Your task to perform on an android device: delete a single message in the gmail app Image 0: 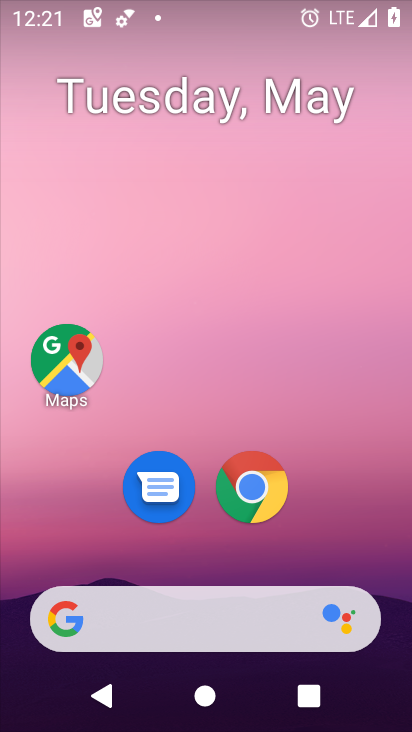
Step 0: drag from (17, 522) to (161, 173)
Your task to perform on an android device: delete a single message in the gmail app Image 1: 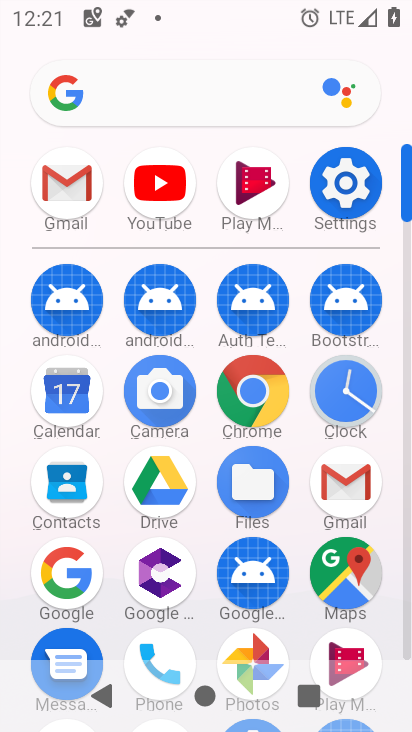
Step 1: click (44, 164)
Your task to perform on an android device: delete a single message in the gmail app Image 2: 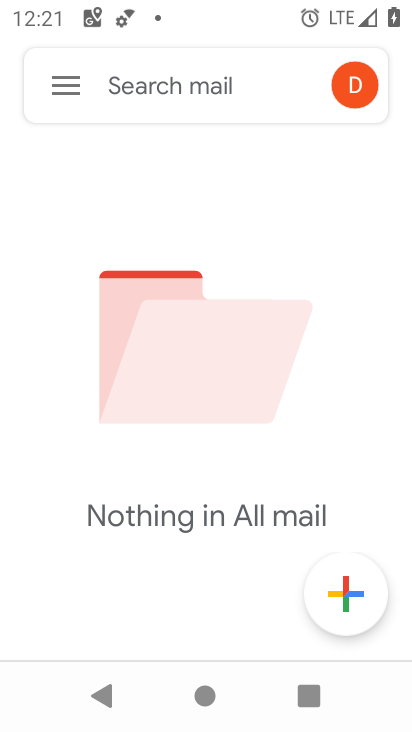
Step 2: click (51, 82)
Your task to perform on an android device: delete a single message in the gmail app Image 3: 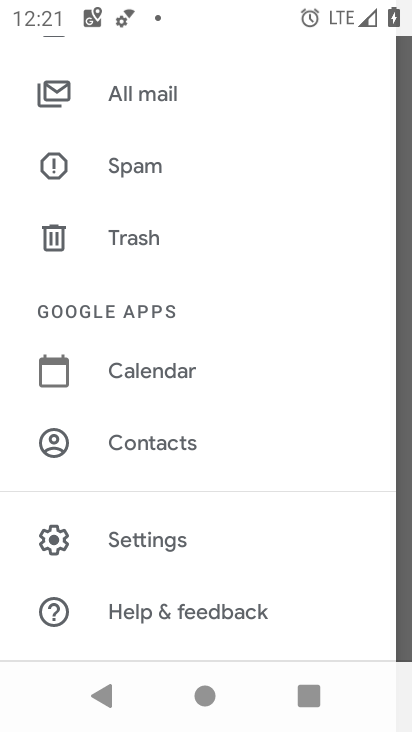
Step 3: click (132, 100)
Your task to perform on an android device: delete a single message in the gmail app Image 4: 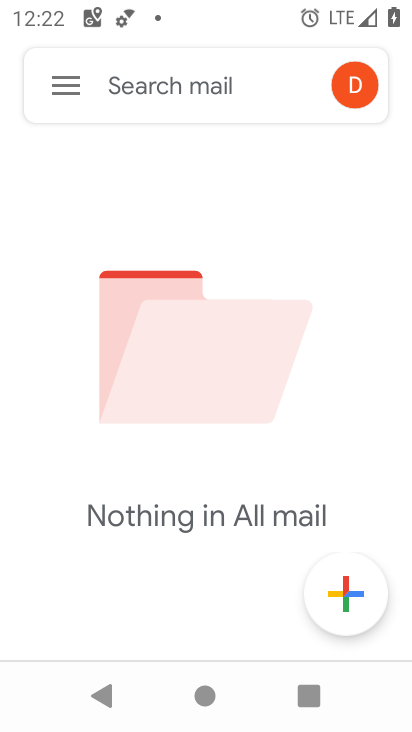
Step 4: task complete